Your task to perform on an android device: turn off notifications settings in the gmail app Image 0: 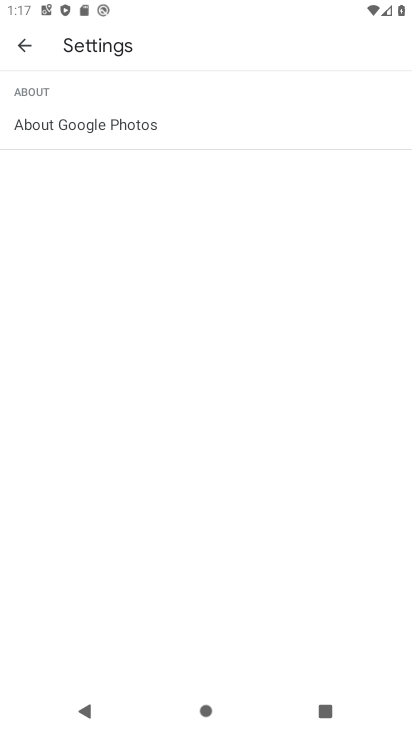
Step 0: click (23, 59)
Your task to perform on an android device: turn off notifications settings in the gmail app Image 1: 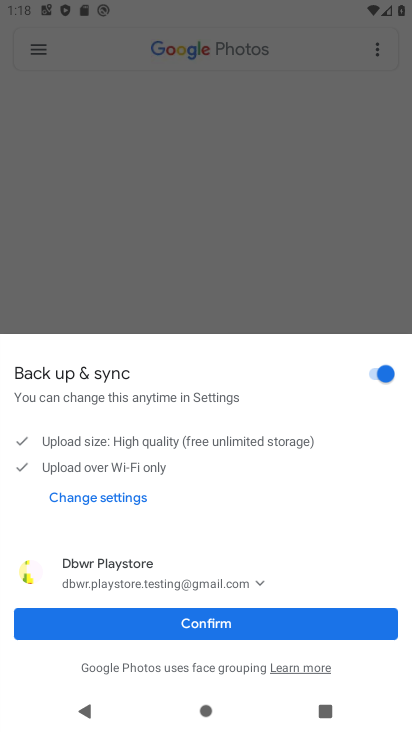
Step 1: click (225, 626)
Your task to perform on an android device: turn off notifications settings in the gmail app Image 2: 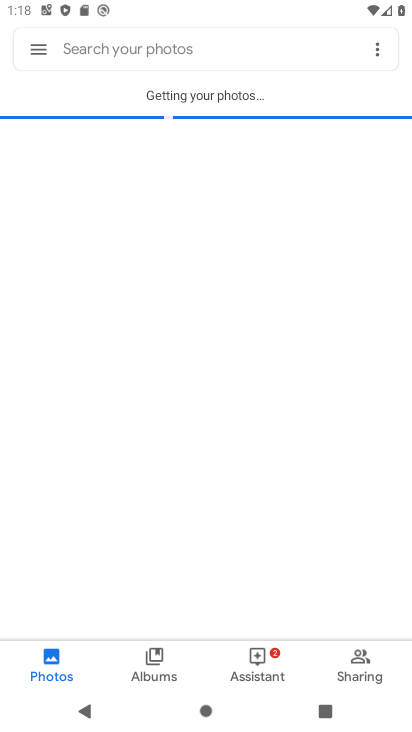
Step 2: click (42, 59)
Your task to perform on an android device: turn off notifications settings in the gmail app Image 3: 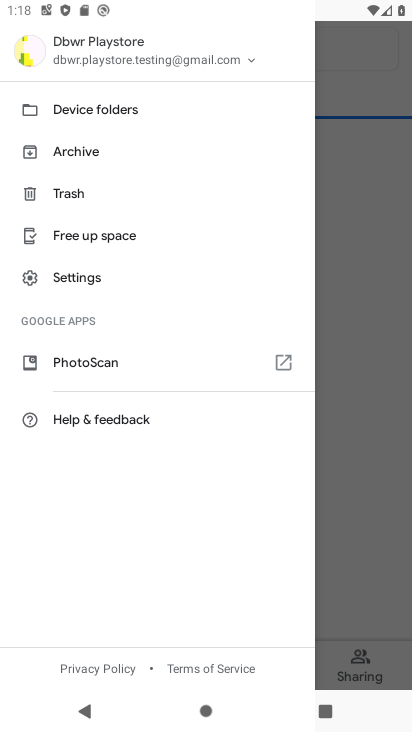
Step 3: click (100, 289)
Your task to perform on an android device: turn off notifications settings in the gmail app Image 4: 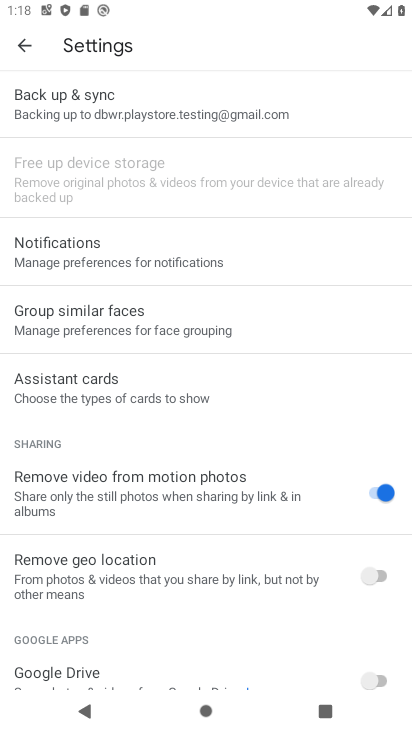
Step 4: click (123, 260)
Your task to perform on an android device: turn off notifications settings in the gmail app Image 5: 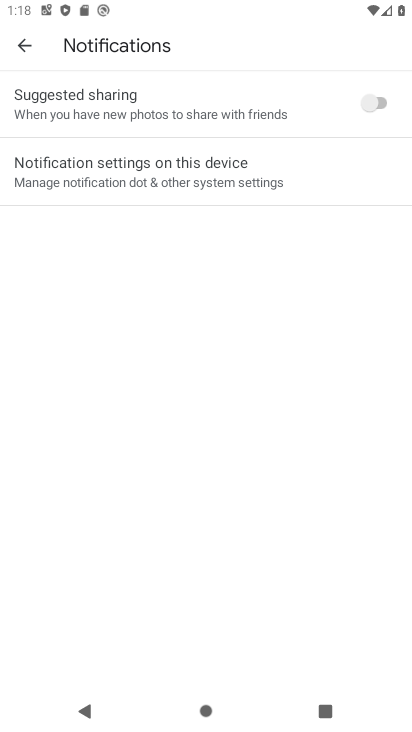
Step 5: click (174, 170)
Your task to perform on an android device: turn off notifications settings in the gmail app Image 6: 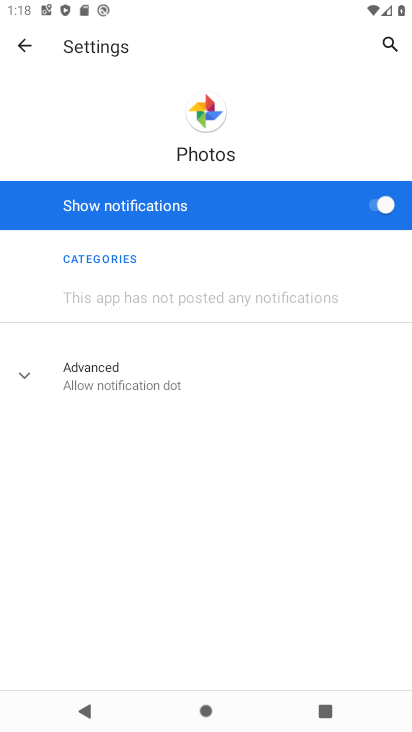
Step 6: click (387, 206)
Your task to perform on an android device: turn off notifications settings in the gmail app Image 7: 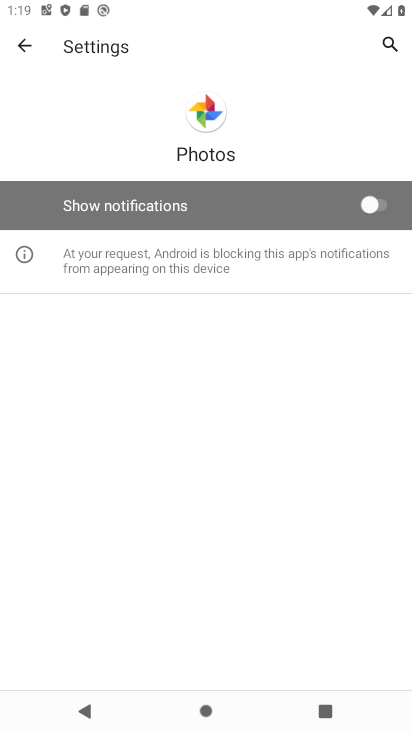
Step 7: task complete